Your task to perform on an android device: Is it going to rain this weekend? Image 0: 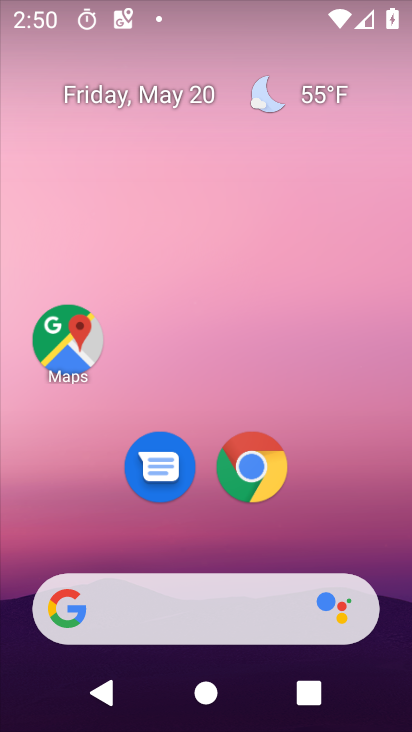
Step 0: click (178, 600)
Your task to perform on an android device: Is it going to rain this weekend? Image 1: 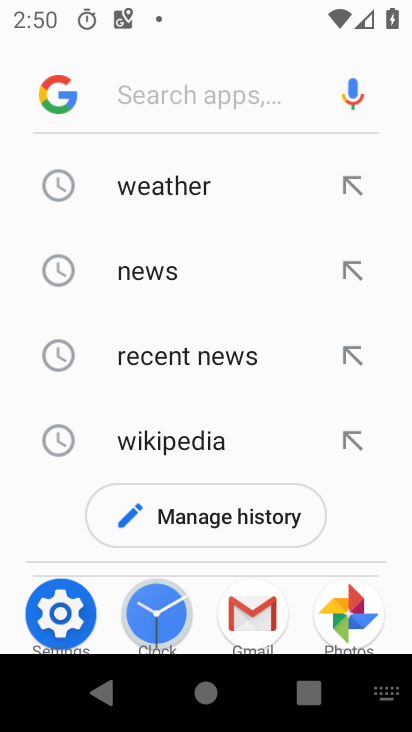
Step 1: type "is it going to rain this weekend"
Your task to perform on an android device: Is it going to rain this weekend? Image 2: 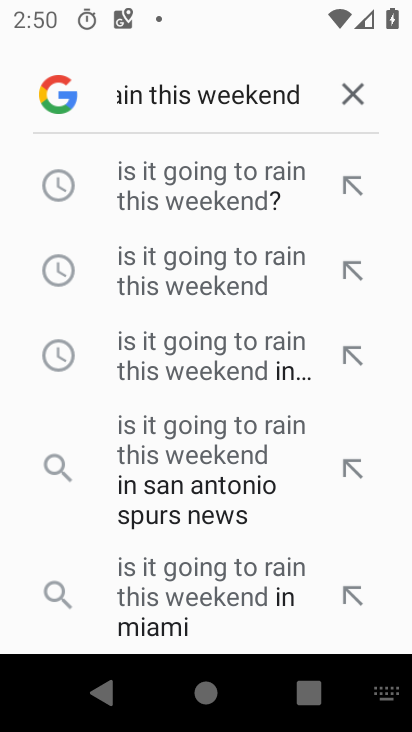
Step 2: click (182, 184)
Your task to perform on an android device: Is it going to rain this weekend? Image 3: 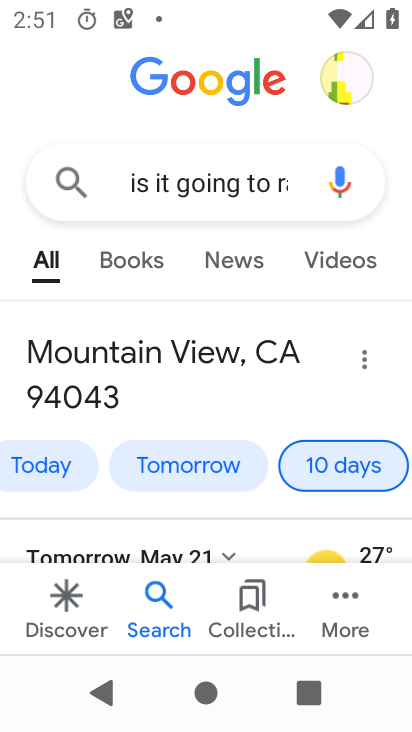
Step 3: task complete